Your task to perform on an android device: turn on sleep mode Image 0: 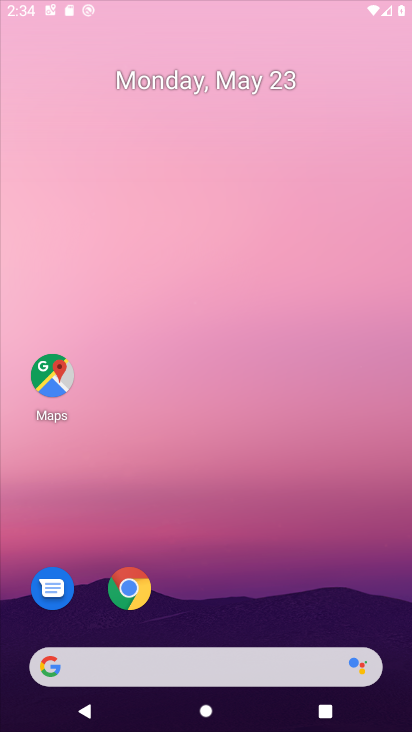
Step 0: click (256, 172)
Your task to perform on an android device: turn on sleep mode Image 1: 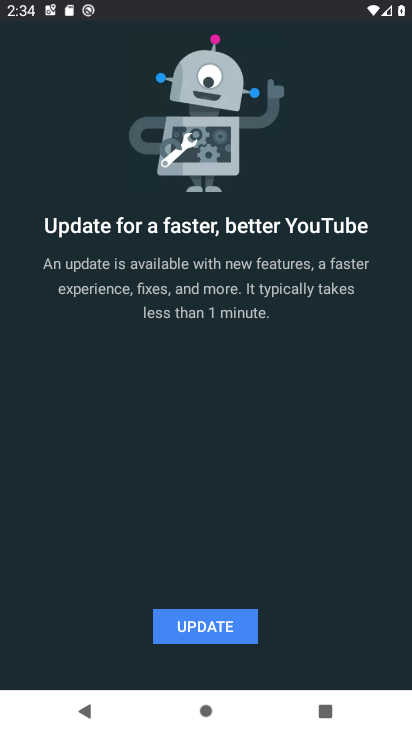
Step 1: press home button
Your task to perform on an android device: turn on sleep mode Image 2: 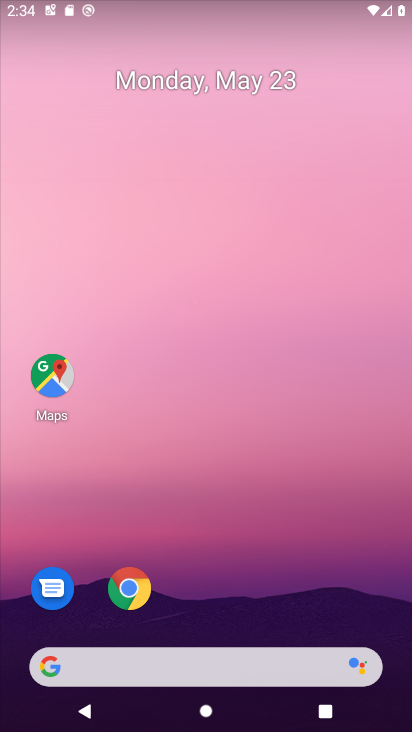
Step 2: drag from (240, 604) to (331, 153)
Your task to perform on an android device: turn on sleep mode Image 3: 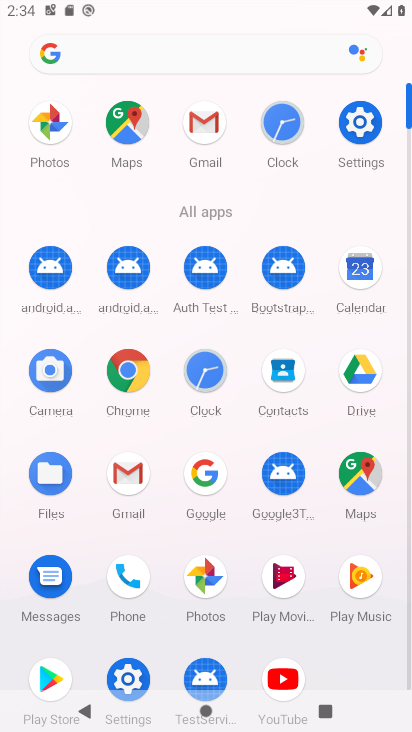
Step 3: click (357, 131)
Your task to perform on an android device: turn on sleep mode Image 4: 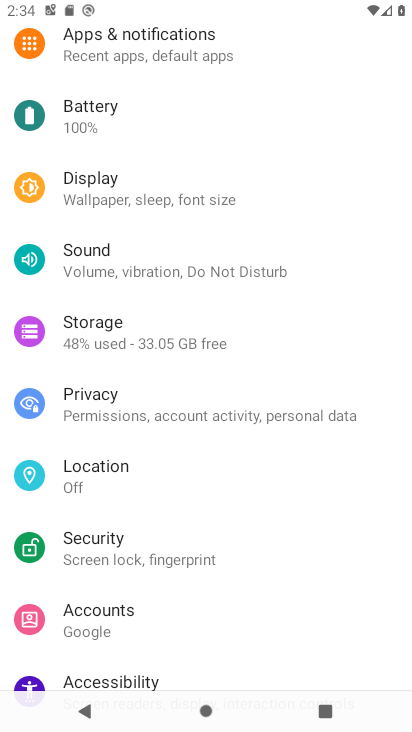
Step 4: click (180, 199)
Your task to perform on an android device: turn on sleep mode Image 5: 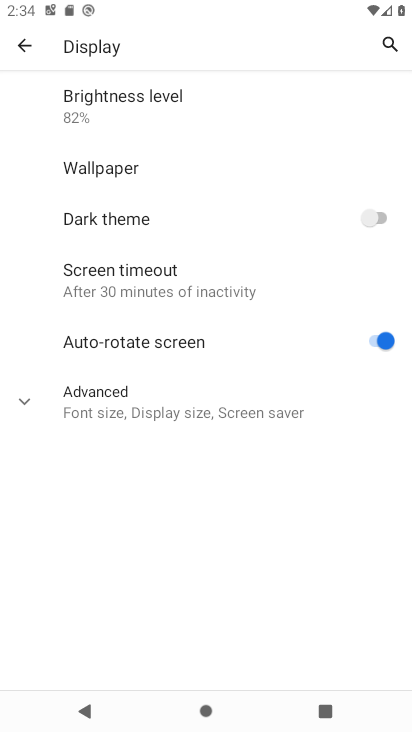
Step 5: click (172, 278)
Your task to perform on an android device: turn on sleep mode Image 6: 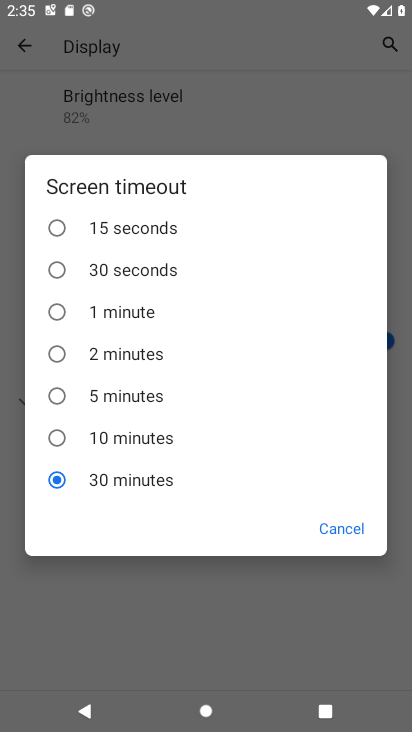
Step 6: click (124, 332)
Your task to perform on an android device: turn on sleep mode Image 7: 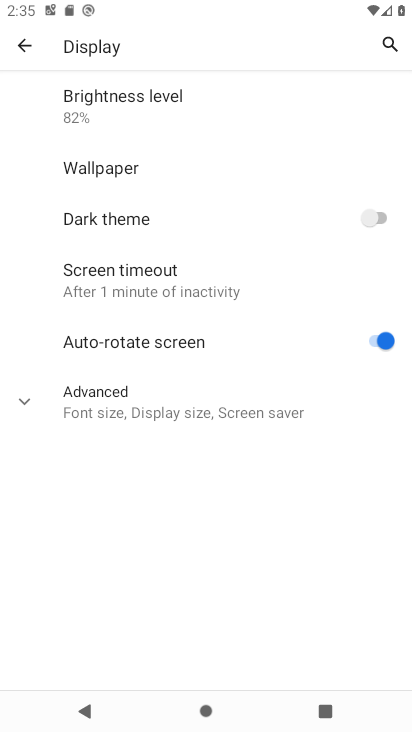
Step 7: drag from (160, 507) to (262, 259)
Your task to perform on an android device: turn on sleep mode Image 8: 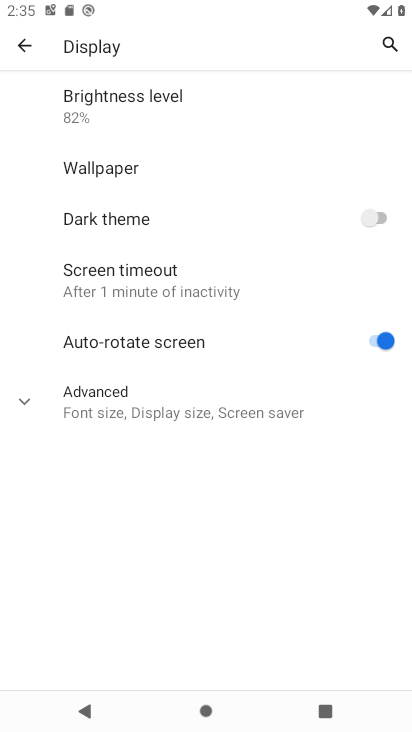
Step 8: drag from (228, 589) to (301, 339)
Your task to perform on an android device: turn on sleep mode Image 9: 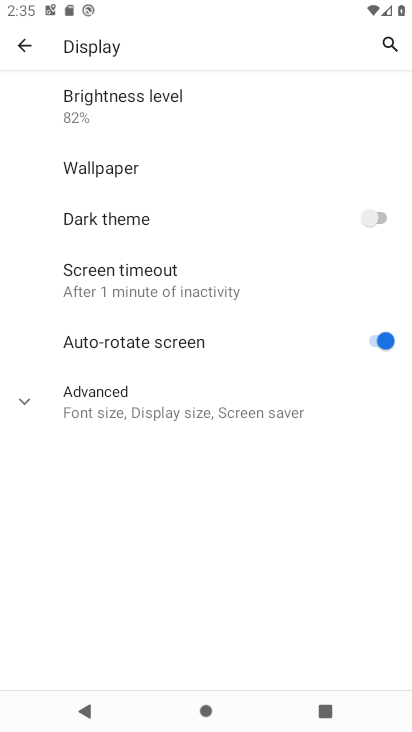
Step 9: drag from (263, 536) to (254, 203)
Your task to perform on an android device: turn on sleep mode Image 10: 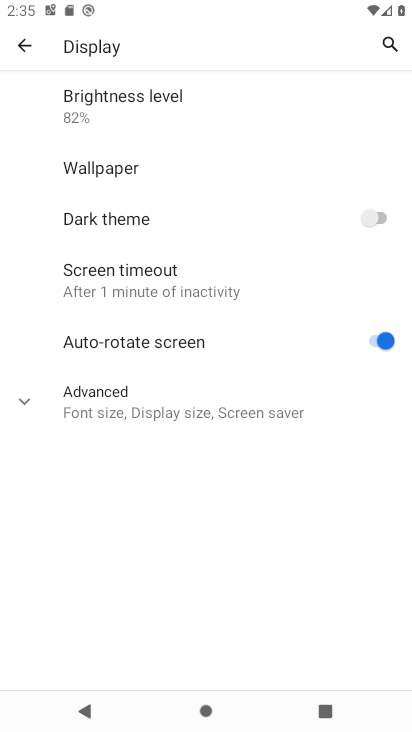
Step 10: drag from (186, 609) to (193, 373)
Your task to perform on an android device: turn on sleep mode Image 11: 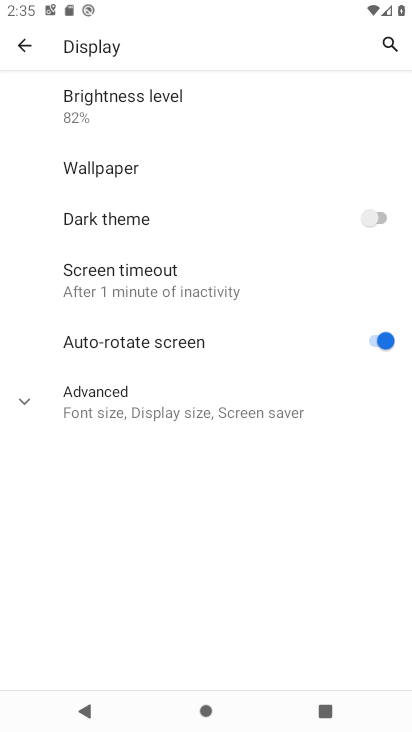
Step 11: click (135, 252)
Your task to perform on an android device: turn on sleep mode Image 12: 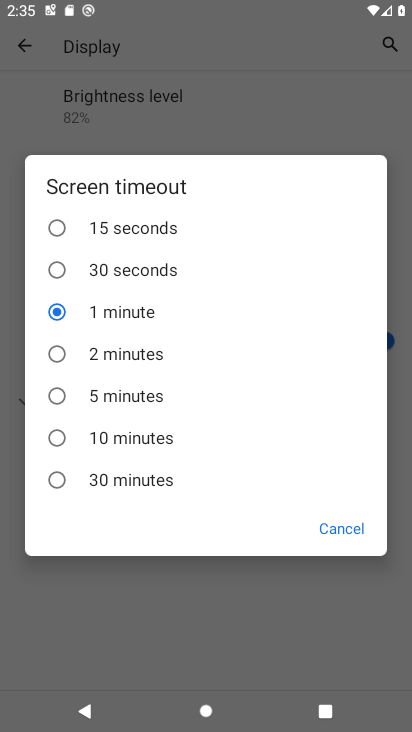
Step 12: task complete